Your task to perform on an android device: toggle airplane mode Image 0: 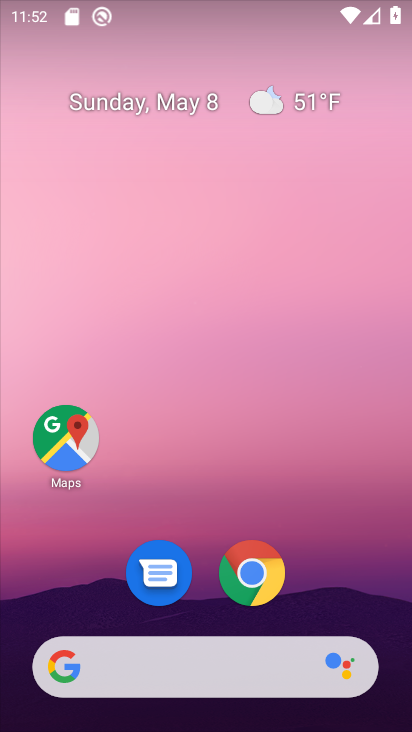
Step 0: drag from (219, 541) to (205, 140)
Your task to perform on an android device: toggle airplane mode Image 1: 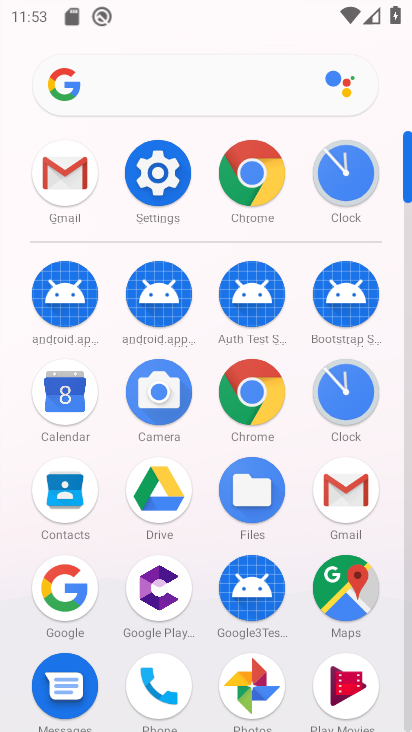
Step 1: click (160, 177)
Your task to perform on an android device: toggle airplane mode Image 2: 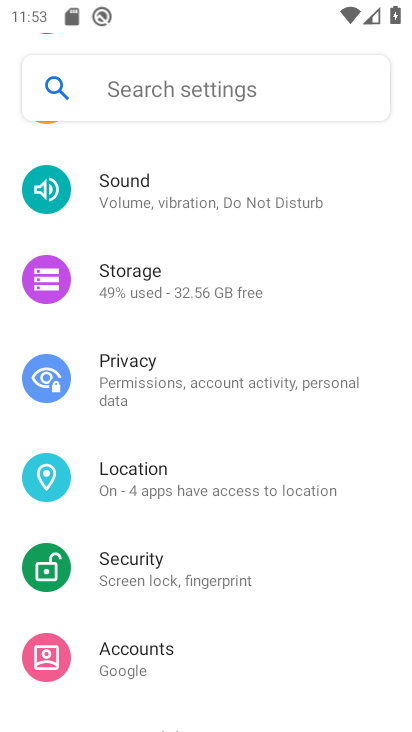
Step 2: drag from (180, 690) to (193, 210)
Your task to perform on an android device: toggle airplane mode Image 3: 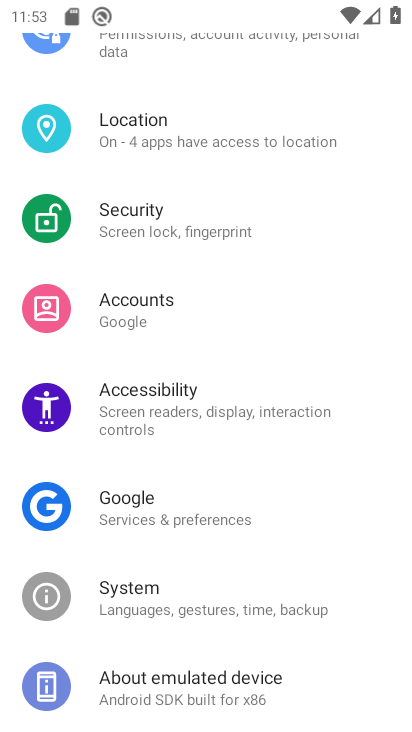
Step 3: drag from (208, 140) to (216, 587)
Your task to perform on an android device: toggle airplane mode Image 4: 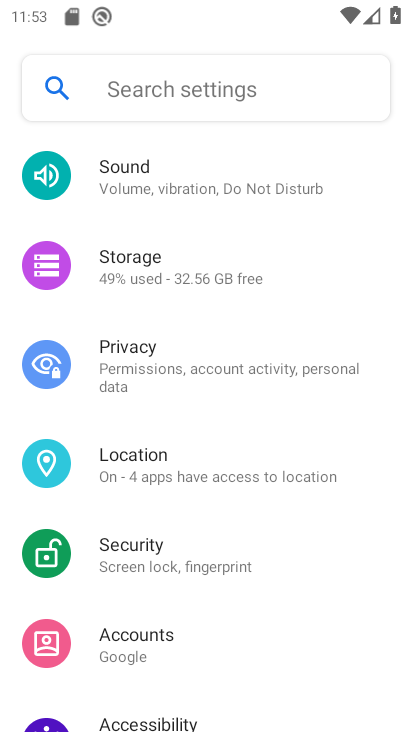
Step 4: drag from (173, 196) to (182, 548)
Your task to perform on an android device: toggle airplane mode Image 5: 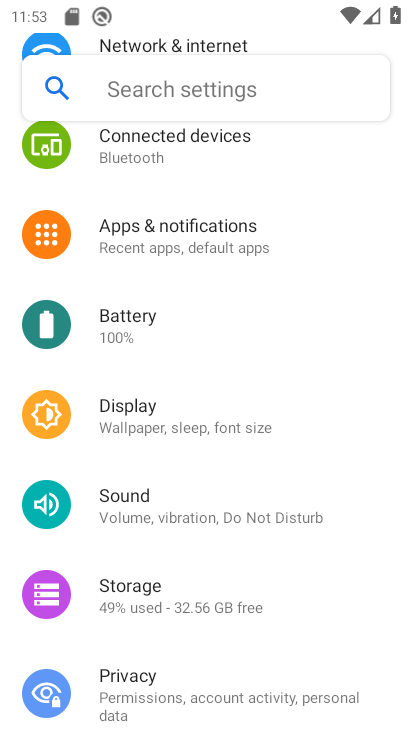
Step 5: drag from (150, 180) to (164, 482)
Your task to perform on an android device: toggle airplane mode Image 6: 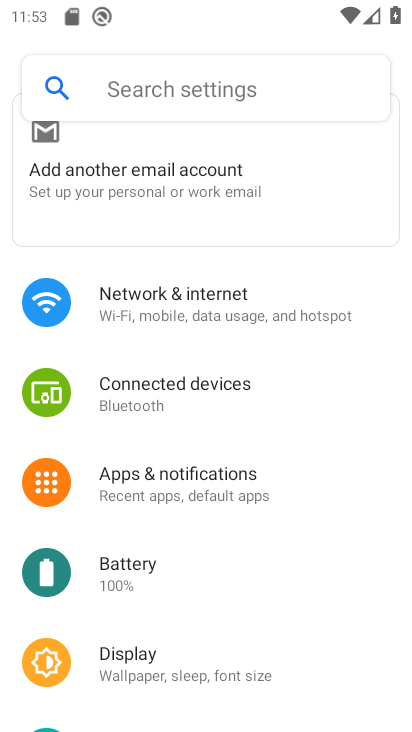
Step 6: click (161, 309)
Your task to perform on an android device: toggle airplane mode Image 7: 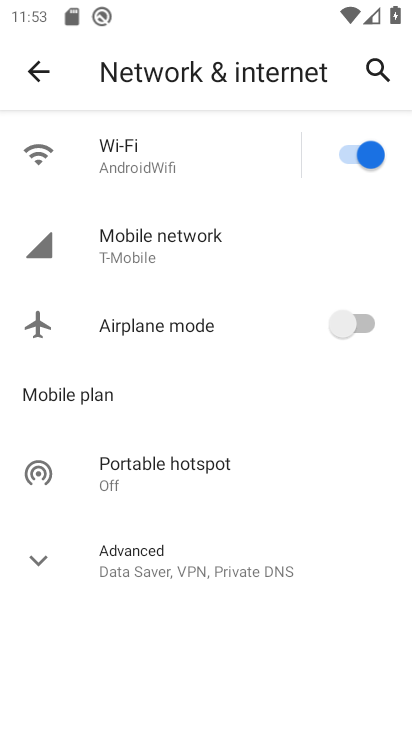
Step 7: click (352, 329)
Your task to perform on an android device: toggle airplane mode Image 8: 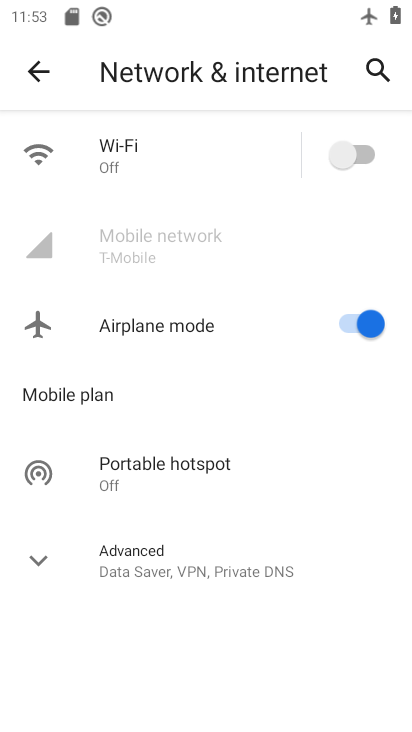
Step 8: task complete